Your task to perform on an android device: Open the phone app and click the voicemail tab. Image 0: 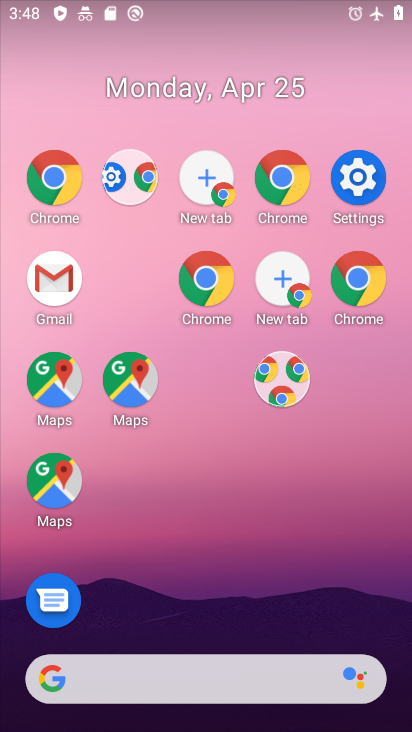
Step 0: drag from (211, 326) to (197, 42)
Your task to perform on an android device: Open the phone app and click the voicemail tab. Image 1: 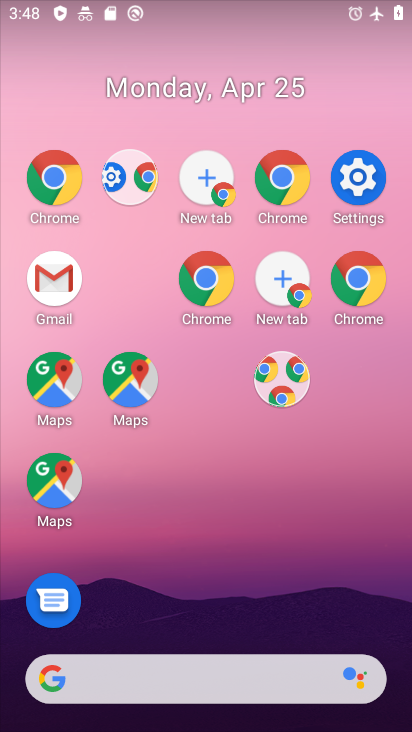
Step 1: drag from (239, 600) to (169, 98)
Your task to perform on an android device: Open the phone app and click the voicemail tab. Image 2: 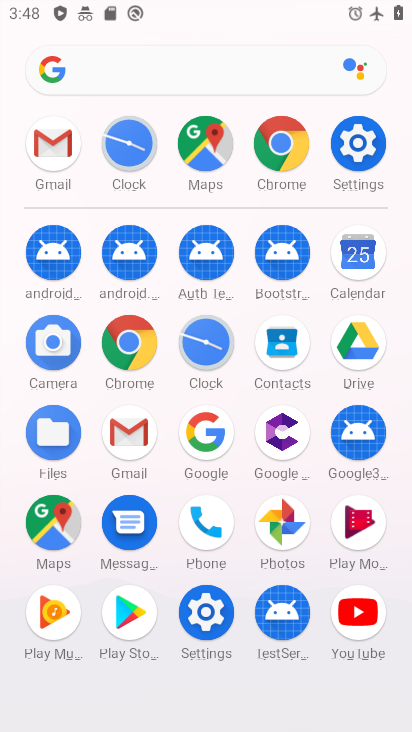
Step 2: click (208, 528)
Your task to perform on an android device: Open the phone app and click the voicemail tab. Image 3: 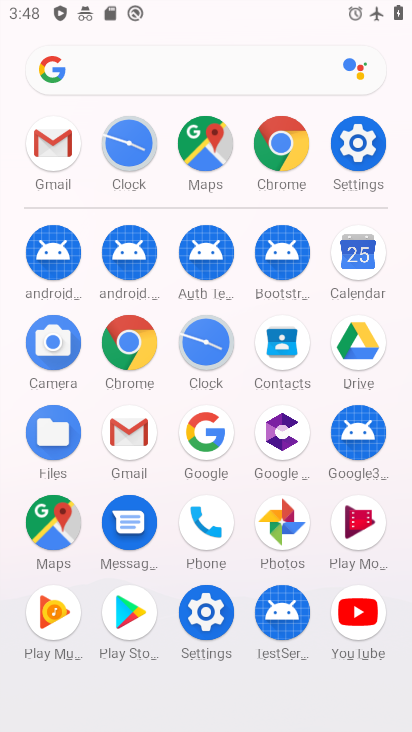
Step 3: drag from (210, 528) to (244, 578)
Your task to perform on an android device: Open the phone app and click the voicemail tab. Image 4: 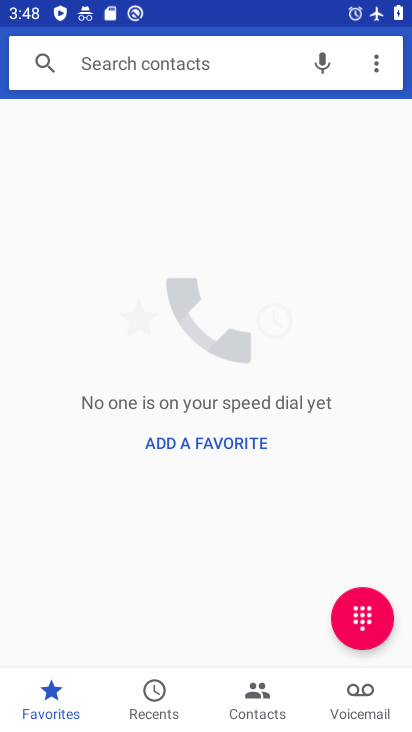
Step 4: click (359, 703)
Your task to perform on an android device: Open the phone app and click the voicemail tab. Image 5: 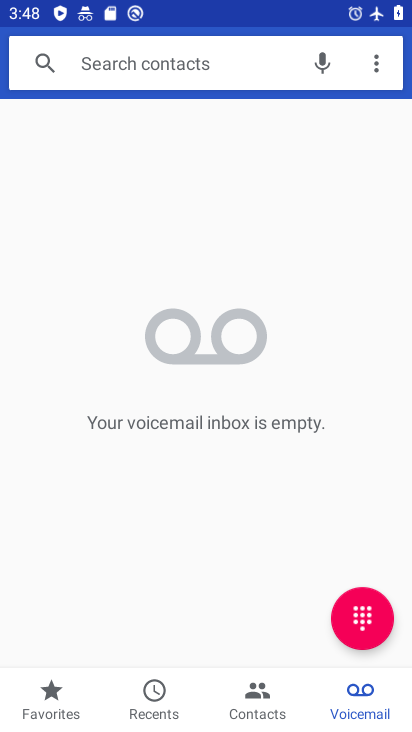
Step 5: click (358, 707)
Your task to perform on an android device: Open the phone app and click the voicemail tab. Image 6: 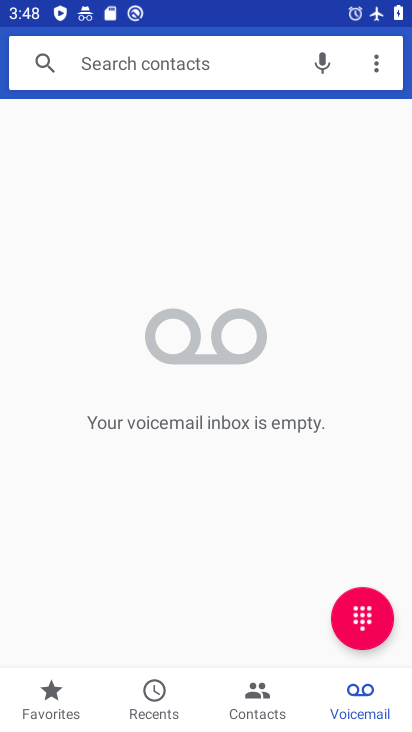
Step 6: task complete